Your task to perform on an android device: Search for jbl flip 4 on bestbuy.com, select the first entry, and add it to the cart. Image 0: 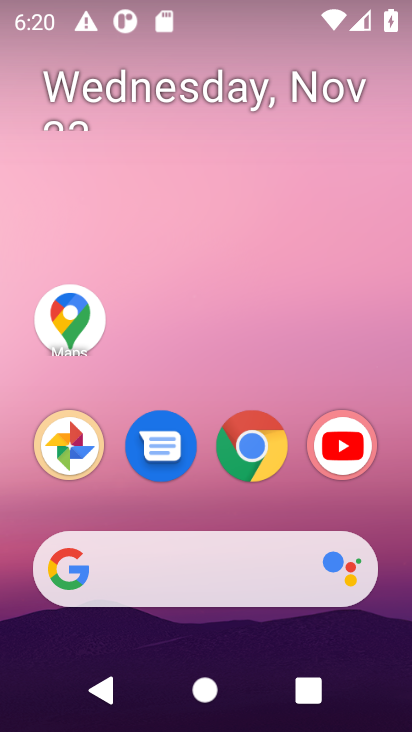
Step 0: click (157, 565)
Your task to perform on an android device: Search for jbl flip 4 on bestbuy.com, select the first entry, and add it to the cart. Image 1: 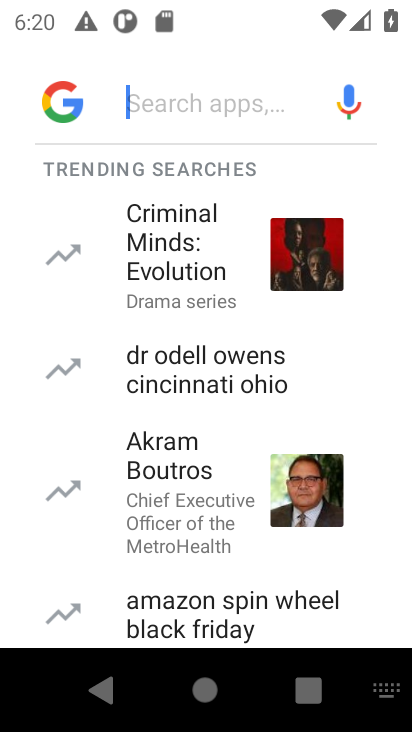
Step 1: type "bestbuy"
Your task to perform on an android device: Search for jbl flip 4 on bestbuy.com, select the first entry, and add it to the cart. Image 2: 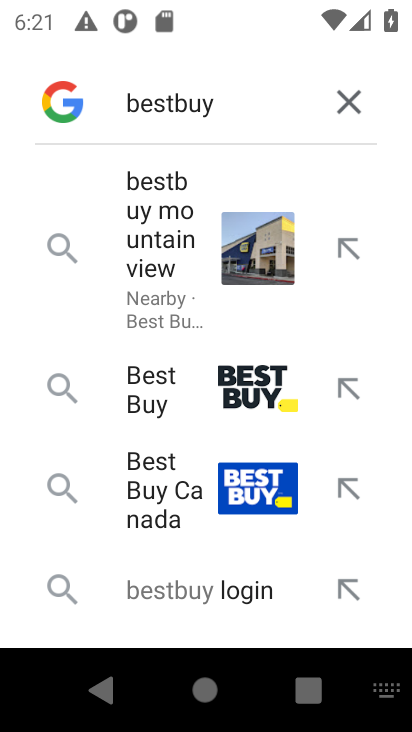
Step 2: click (177, 201)
Your task to perform on an android device: Search for jbl flip 4 on bestbuy.com, select the first entry, and add it to the cart. Image 3: 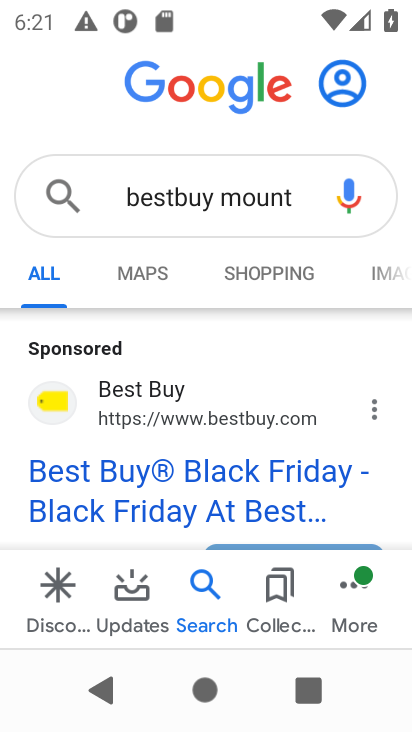
Step 3: click (59, 489)
Your task to perform on an android device: Search for jbl flip 4 on bestbuy.com, select the first entry, and add it to the cart. Image 4: 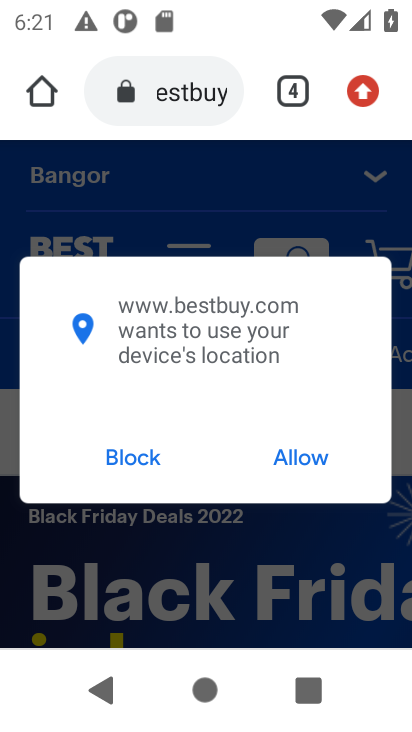
Step 4: click (284, 472)
Your task to perform on an android device: Search for jbl flip 4 on bestbuy.com, select the first entry, and add it to the cart. Image 5: 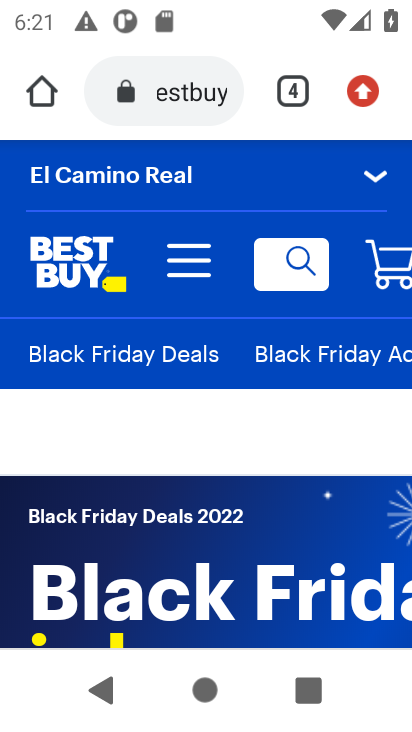
Step 5: click (302, 271)
Your task to perform on an android device: Search for jbl flip 4 on bestbuy.com, select the first entry, and add it to the cart. Image 6: 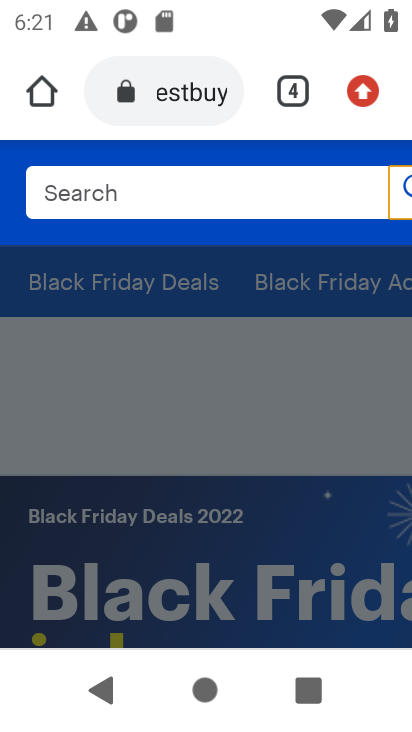
Step 6: type "jbl flip 4"
Your task to perform on an android device: Search for jbl flip 4 on bestbuy.com, select the first entry, and add it to the cart. Image 7: 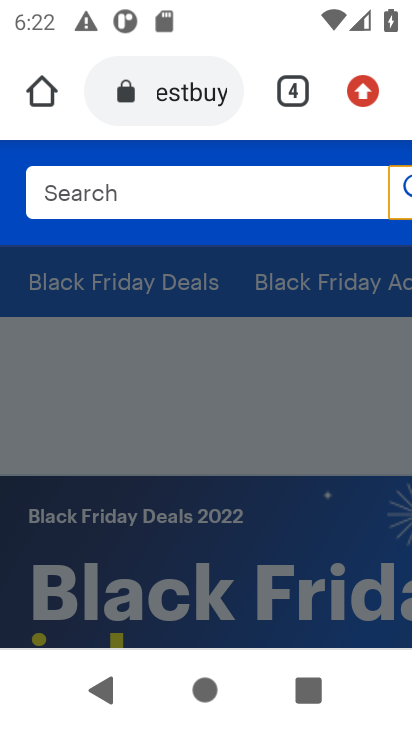
Step 7: click (187, 190)
Your task to perform on an android device: Search for jbl flip 4 on bestbuy.com, select the first entry, and add it to the cart. Image 8: 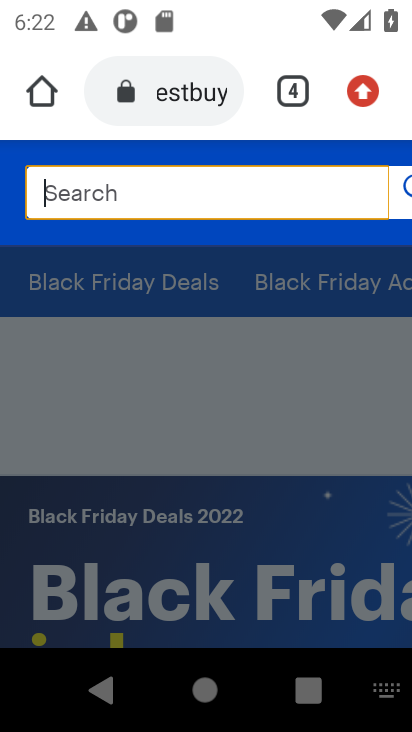
Step 8: type "jbl flip 4"
Your task to perform on an android device: Search for jbl flip 4 on bestbuy.com, select the first entry, and add it to the cart. Image 9: 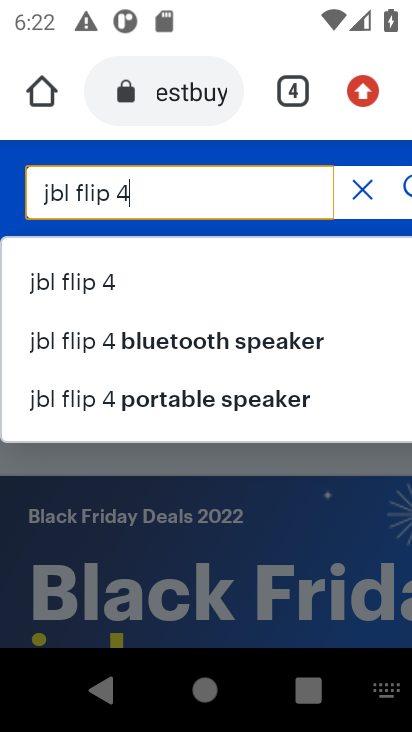
Step 9: click (230, 286)
Your task to perform on an android device: Search for jbl flip 4 on bestbuy.com, select the first entry, and add it to the cart. Image 10: 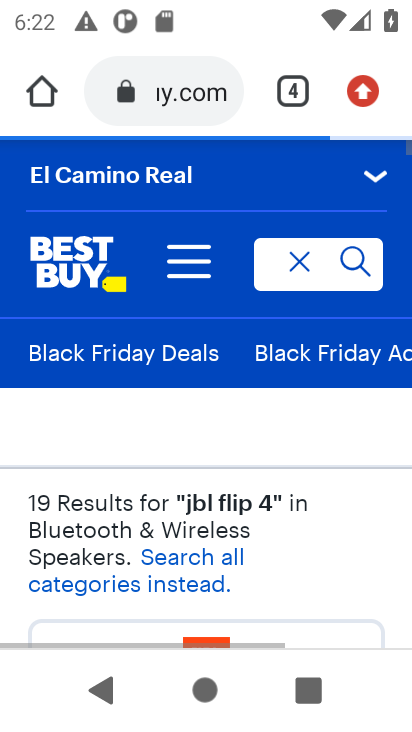
Step 10: drag from (226, 594) to (233, 252)
Your task to perform on an android device: Search for jbl flip 4 on bestbuy.com, select the first entry, and add it to the cart. Image 11: 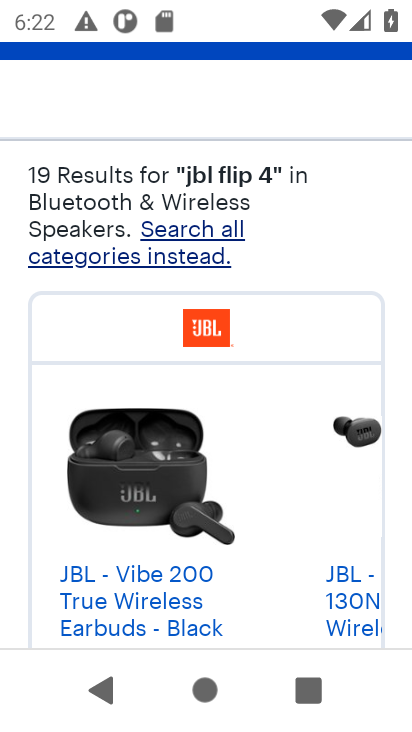
Step 11: drag from (262, 505) to (260, 238)
Your task to perform on an android device: Search for jbl flip 4 on bestbuy.com, select the first entry, and add it to the cart. Image 12: 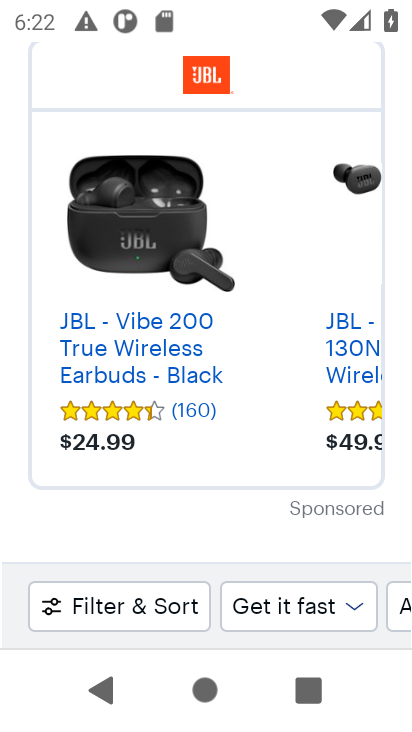
Step 12: click (177, 360)
Your task to perform on an android device: Search for jbl flip 4 on bestbuy.com, select the first entry, and add it to the cart. Image 13: 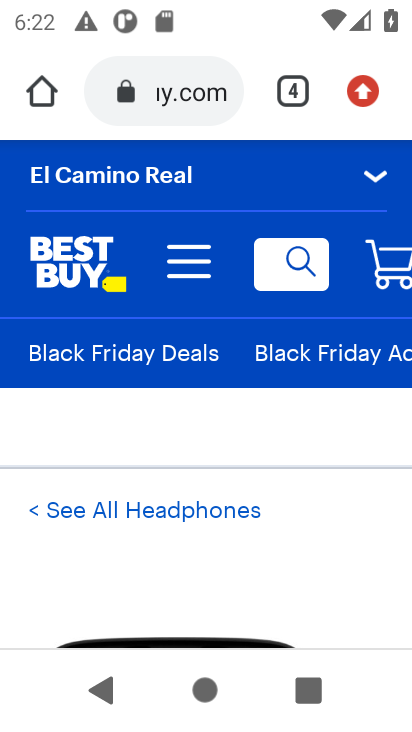
Step 13: drag from (343, 550) to (338, 208)
Your task to perform on an android device: Search for jbl flip 4 on bestbuy.com, select the first entry, and add it to the cart. Image 14: 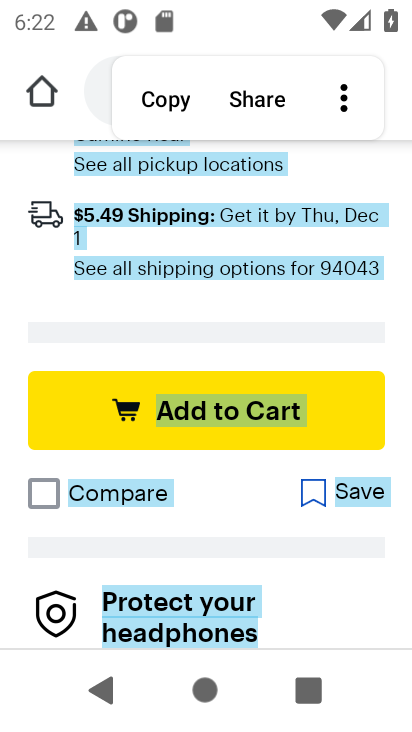
Step 14: click (235, 494)
Your task to perform on an android device: Search for jbl flip 4 on bestbuy.com, select the first entry, and add it to the cart. Image 15: 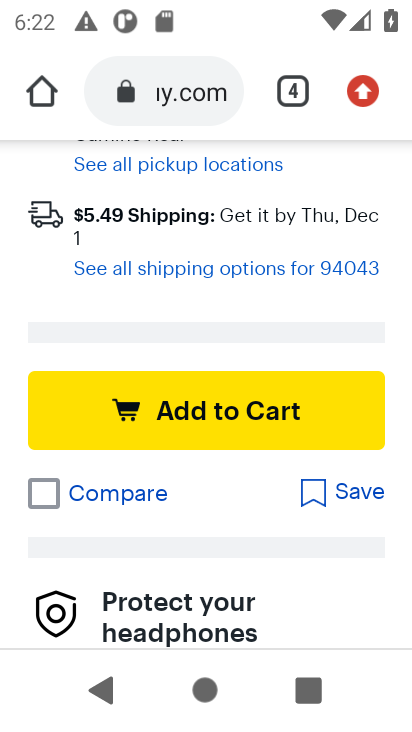
Step 15: click (229, 434)
Your task to perform on an android device: Search for jbl flip 4 on bestbuy.com, select the first entry, and add it to the cart. Image 16: 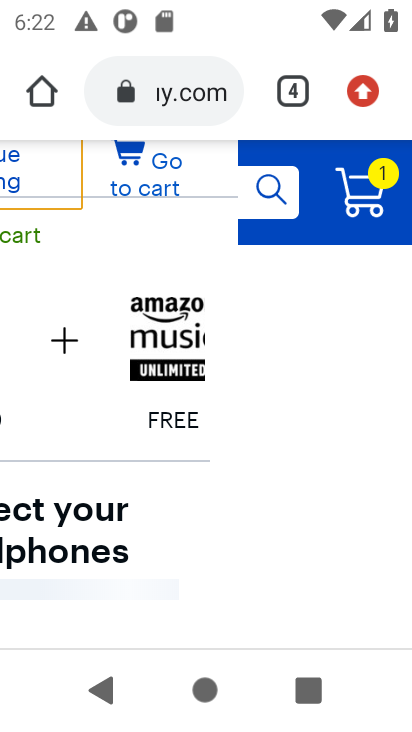
Step 16: task complete